Your task to perform on an android device: create a new album in the google photos Image 0: 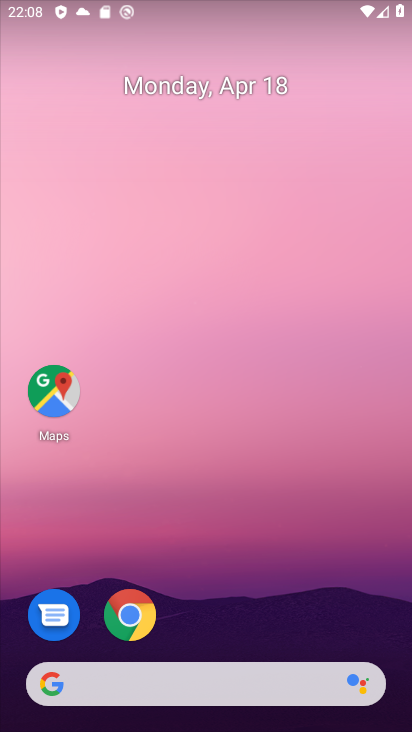
Step 0: drag from (351, 638) to (360, 74)
Your task to perform on an android device: create a new album in the google photos Image 1: 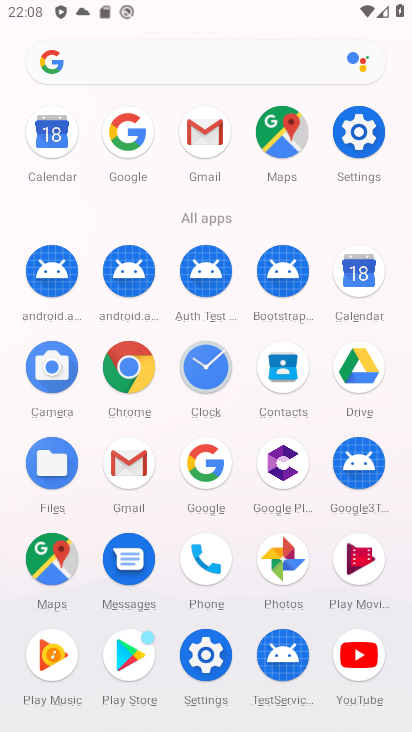
Step 1: click (277, 557)
Your task to perform on an android device: create a new album in the google photos Image 2: 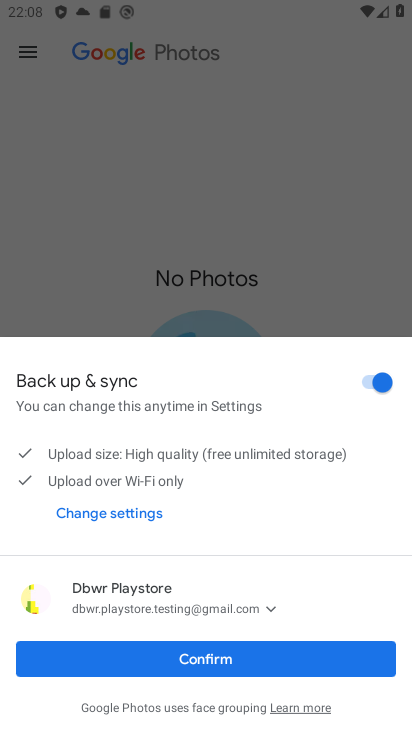
Step 2: click (185, 660)
Your task to perform on an android device: create a new album in the google photos Image 3: 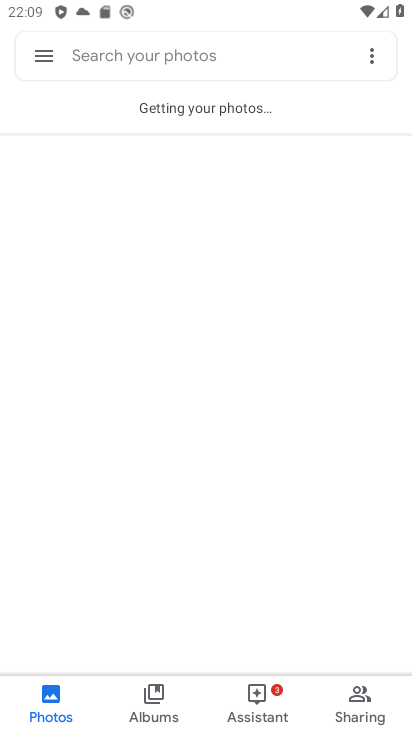
Step 3: click (49, 710)
Your task to perform on an android device: create a new album in the google photos Image 4: 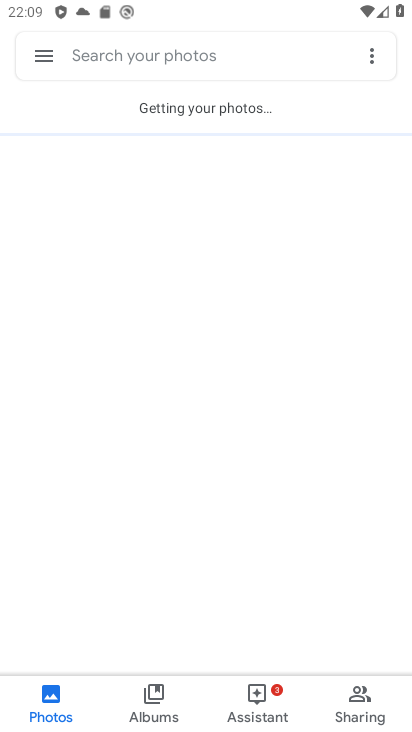
Step 4: click (158, 708)
Your task to perform on an android device: create a new album in the google photos Image 5: 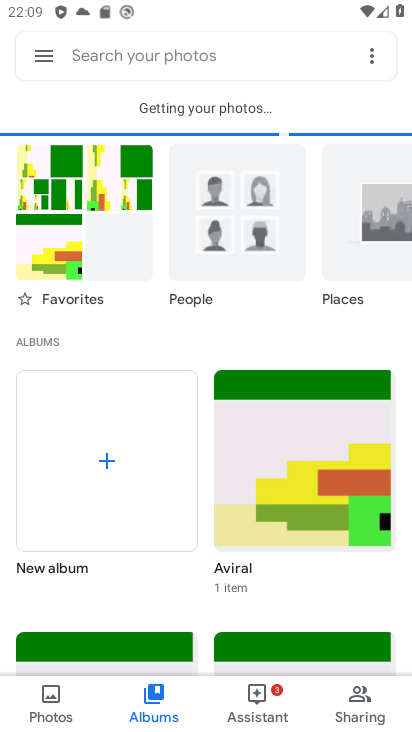
Step 5: click (108, 464)
Your task to perform on an android device: create a new album in the google photos Image 6: 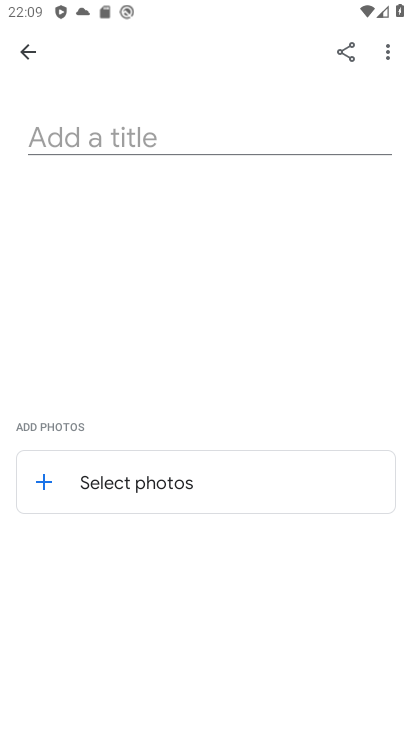
Step 6: click (70, 133)
Your task to perform on an android device: create a new album in the google photos Image 7: 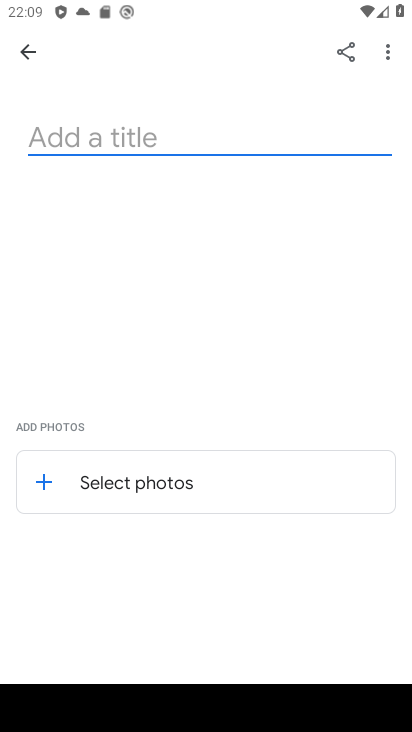
Step 7: type "new 1"
Your task to perform on an android device: create a new album in the google photos Image 8: 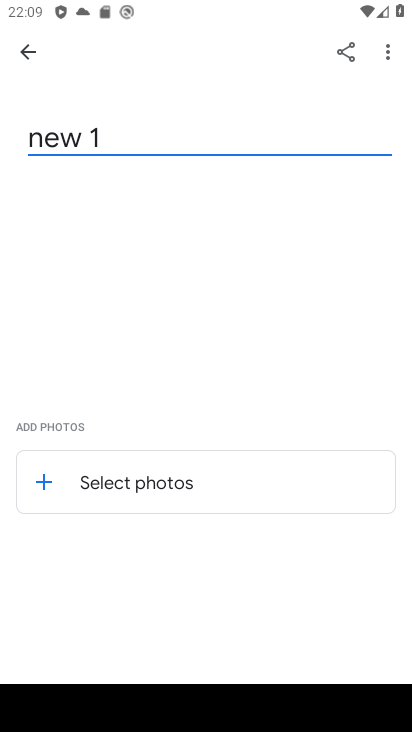
Step 8: click (160, 479)
Your task to perform on an android device: create a new album in the google photos Image 9: 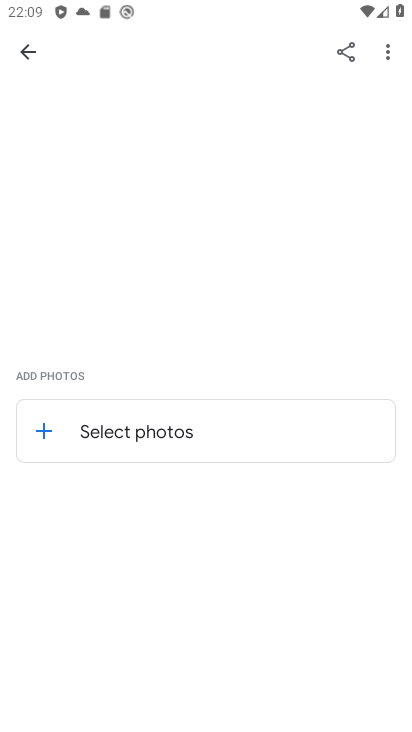
Step 9: click (139, 464)
Your task to perform on an android device: create a new album in the google photos Image 10: 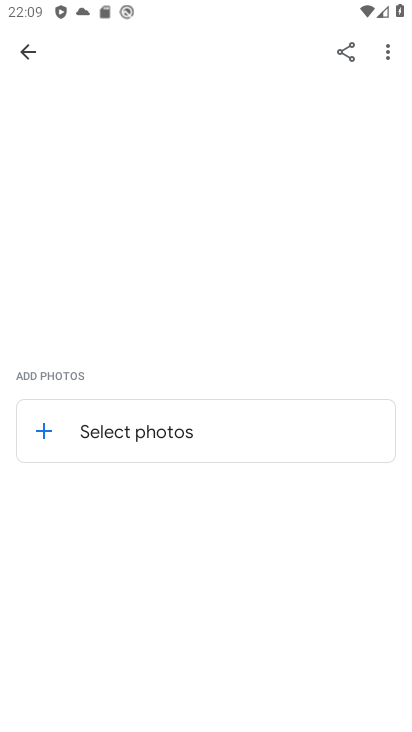
Step 10: click (129, 430)
Your task to perform on an android device: create a new album in the google photos Image 11: 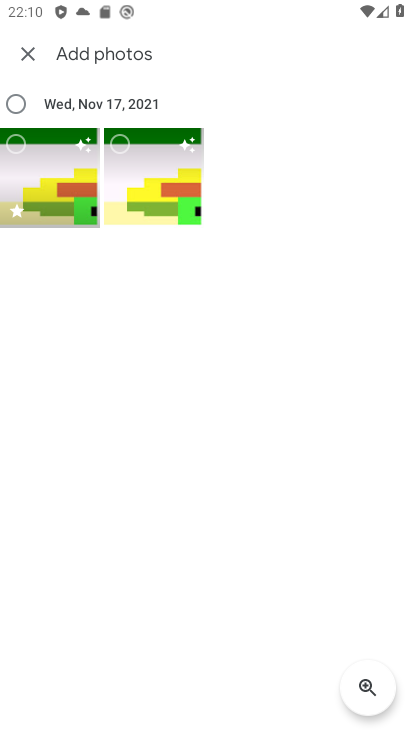
Step 11: click (46, 430)
Your task to perform on an android device: create a new album in the google photos Image 12: 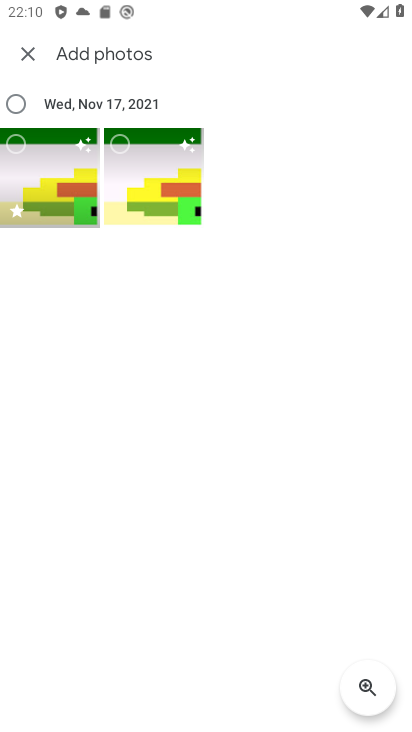
Step 12: click (75, 165)
Your task to perform on an android device: create a new album in the google photos Image 13: 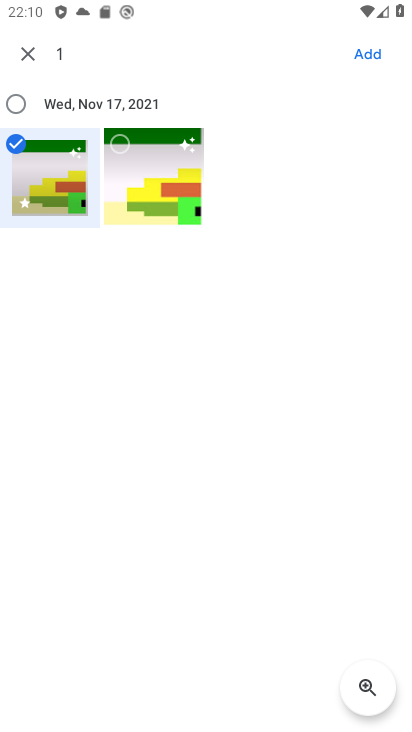
Step 13: click (380, 56)
Your task to perform on an android device: create a new album in the google photos Image 14: 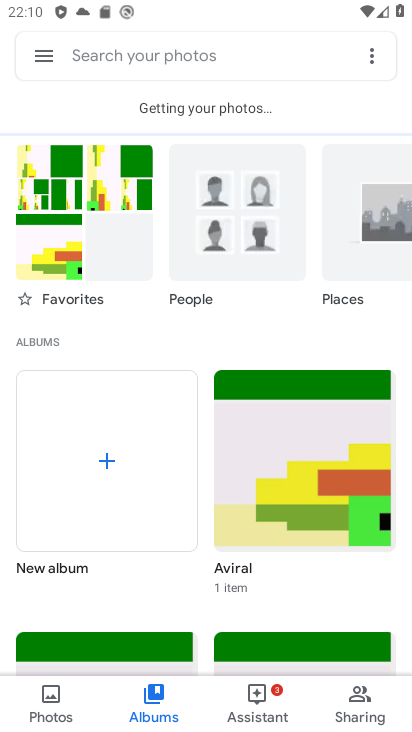
Step 14: task complete